Your task to perform on an android device: Go to calendar. Show me events next week Image 0: 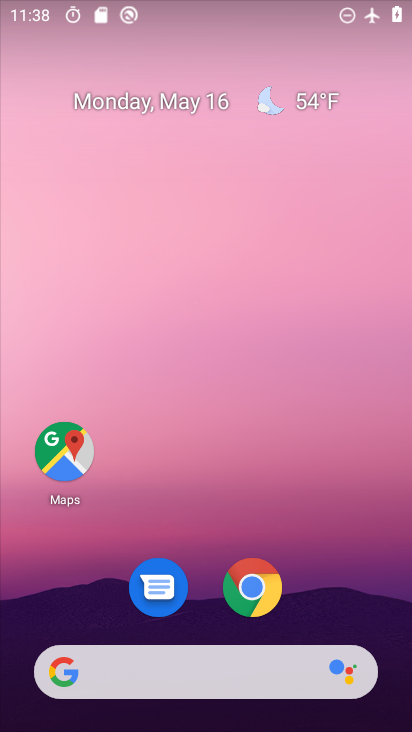
Step 0: drag from (216, 607) to (241, 173)
Your task to perform on an android device: Go to calendar. Show me events next week Image 1: 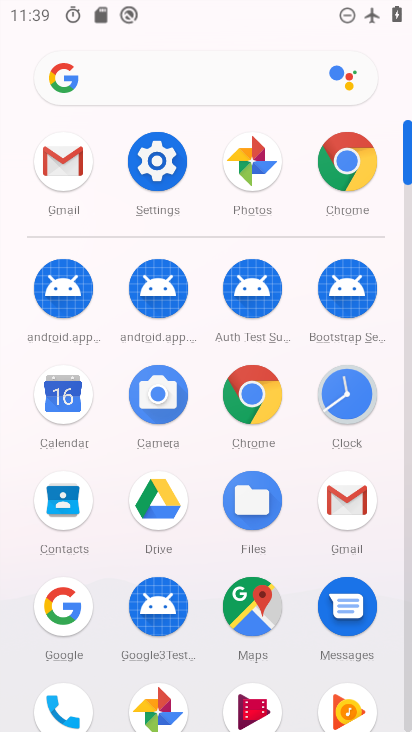
Step 1: click (58, 398)
Your task to perform on an android device: Go to calendar. Show me events next week Image 2: 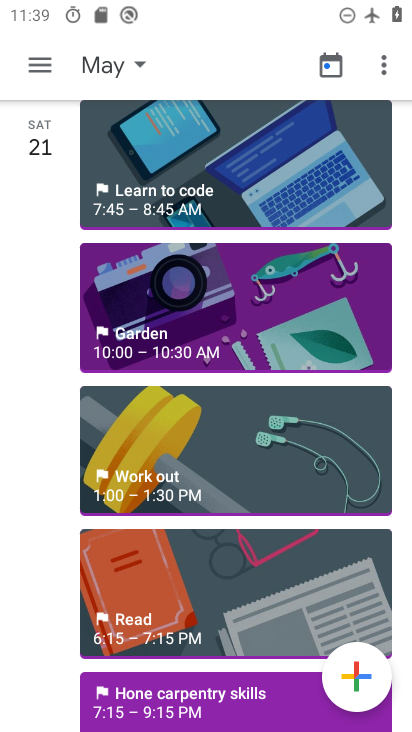
Step 2: click (117, 60)
Your task to perform on an android device: Go to calendar. Show me events next week Image 3: 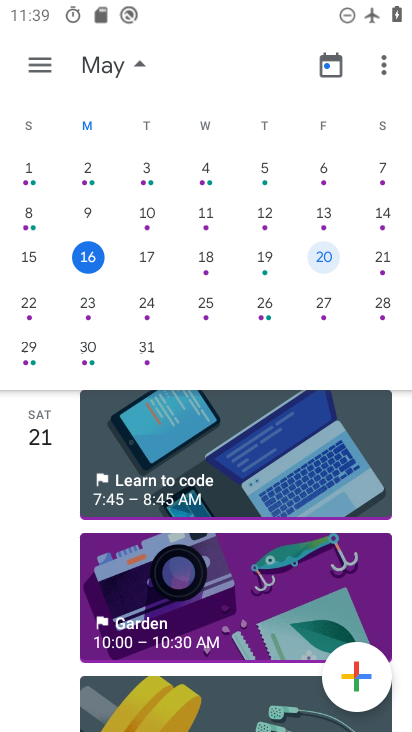
Step 3: click (254, 278)
Your task to perform on an android device: Go to calendar. Show me events next week Image 4: 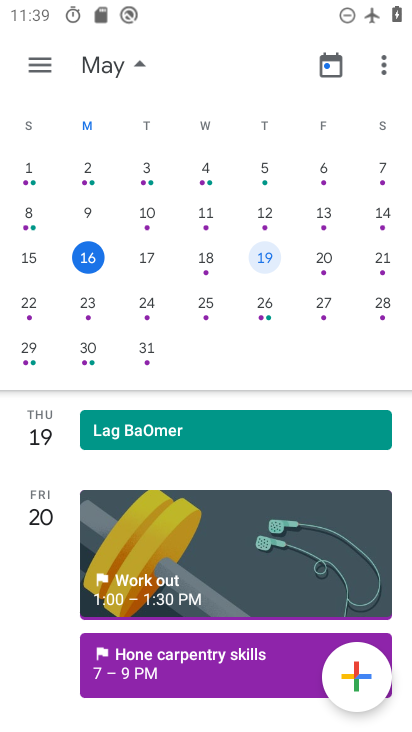
Step 4: task complete